Your task to perform on an android device: Where can I buy a nice beach bag? Image 0: 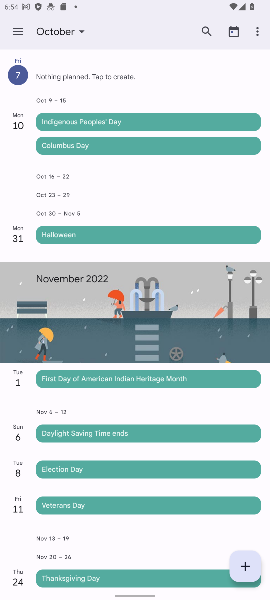
Step 0: press home button
Your task to perform on an android device: Where can I buy a nice beach bag? Image 1: 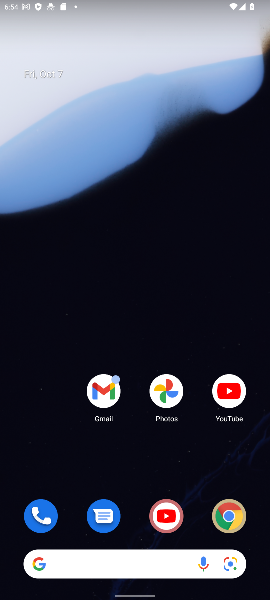
Step 1: click (135, 559)
Your task to perform on an android device: Where can I buy a nice beach bag? Image 2: 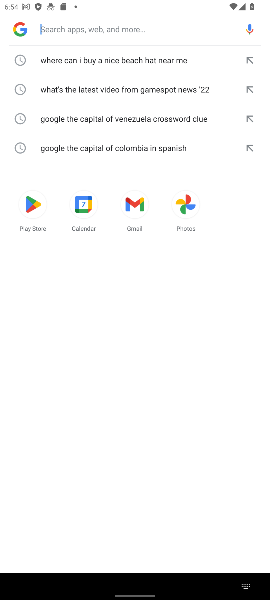
Step 2: type "Where can I buy a nice beach bag?"
Your task to perform on an android device: Where can I buy a nice beach bag? Image 3: 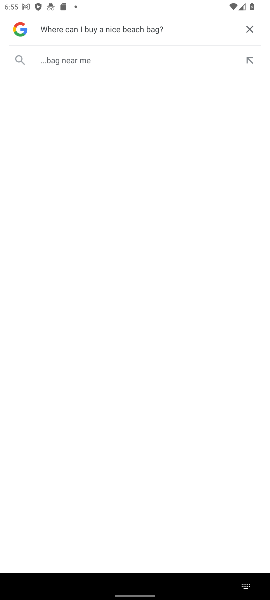
Step 3: click (104, 69)
Your task to perform on an android device: Where can I buy a nice beach bag? Image 4: 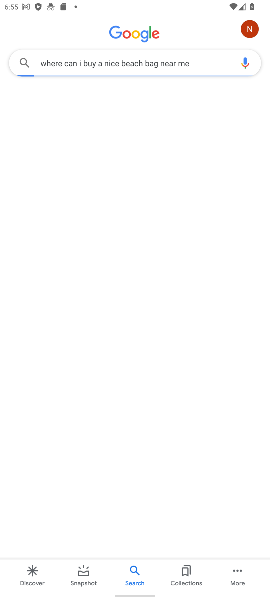
Step 4: task complete